Your task to perform on an android device: Open display settings Image 0: 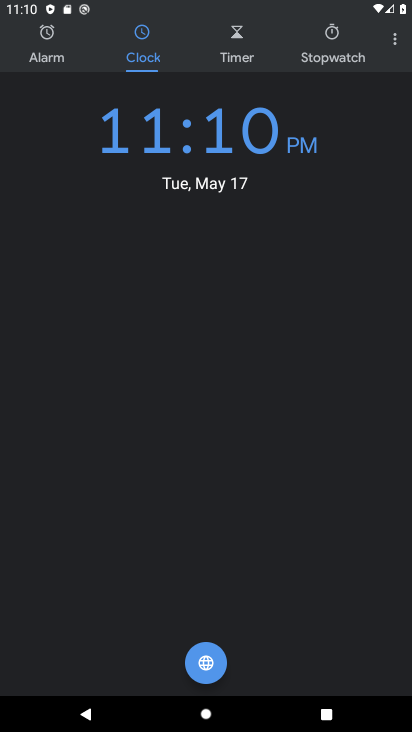
Step 0: press home button
Your task to perform on an android device: Open display settings Image 1: 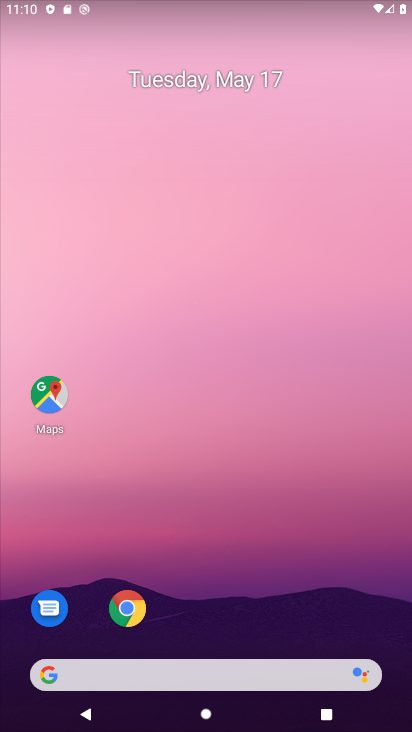
Step 1: drag from (242, 629) to (272, 165)
Your task to perform on an android device: Open display settings Image 2: 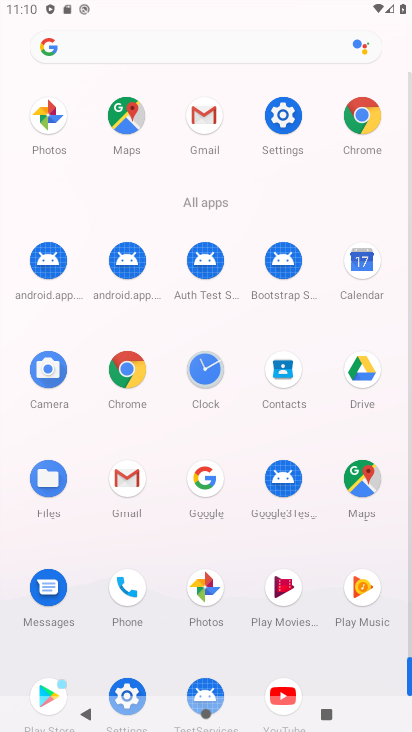
Step 2: click (286, 128)
Your task to perform on an android device: Open display settings Image 3: 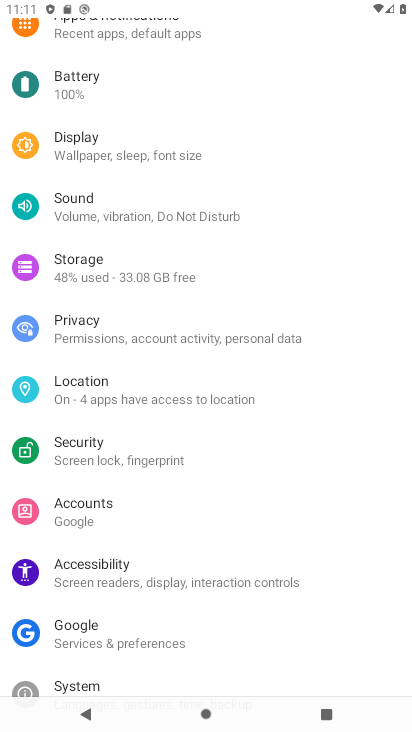
Step 3: click (122, 150)
Your task to perform on an android device: Open display settings Image 4: 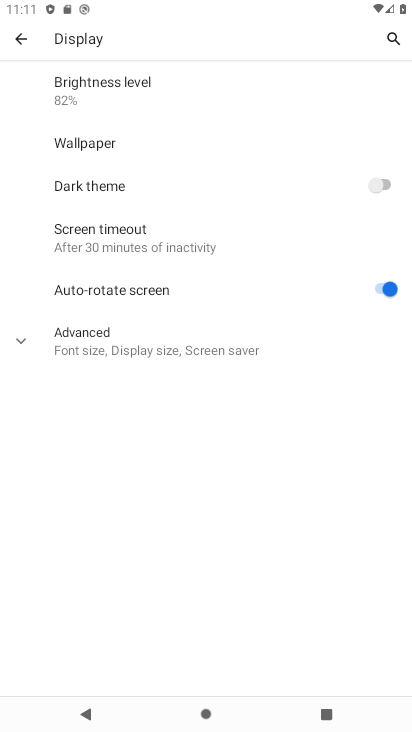
Step 4: task complete